Your task to perform on an android device: move an email to a new category in the gmail app Image 0: 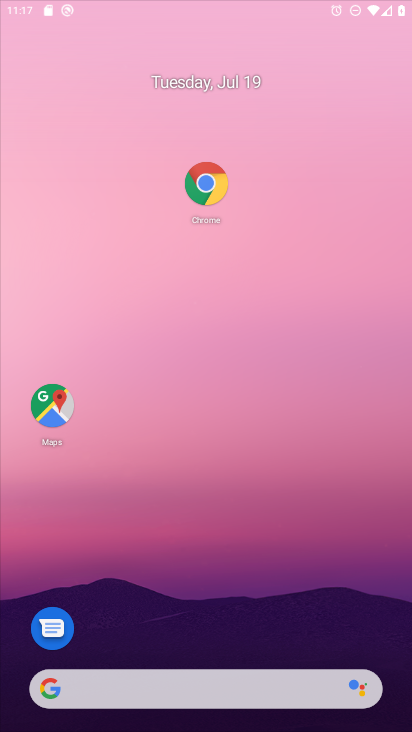
Step 0: press home button
Your task to perform on an android device: move an email to a new category in the gmail app Image 1: 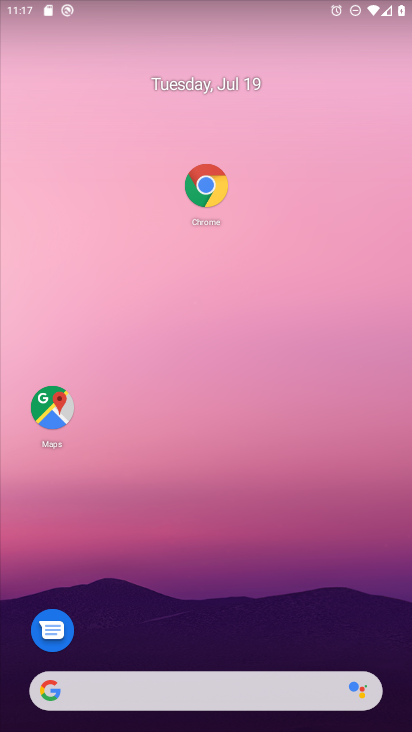
Step 1: drag from (244, 687) to (302, 153)
Your task to perform on an android device: move an email to a new category in the gmail app Image 2: 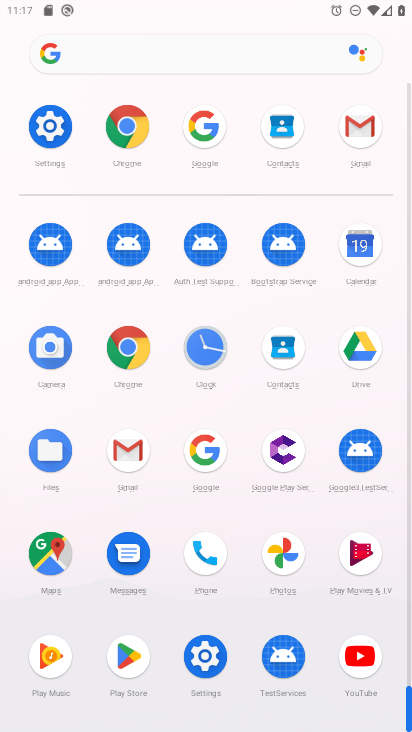
Step 2: click (140, 473)
Your task to perform on an android device: move an email to a new category in the gmail app Image 3: 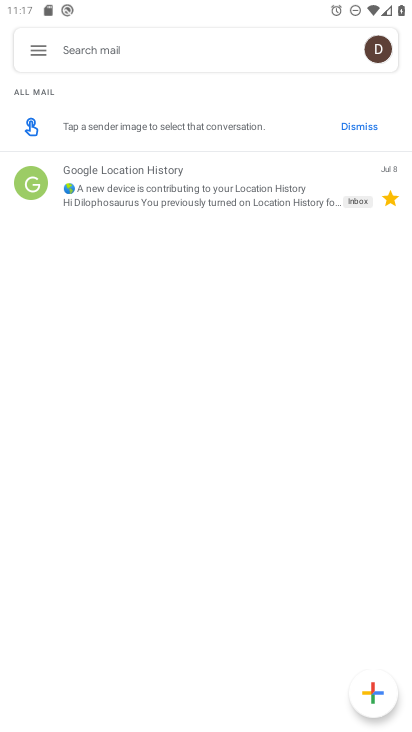
Step 3: click (202, 199)
Your task to perform on an android device: move an email to a new category in the gmail app Image 4: 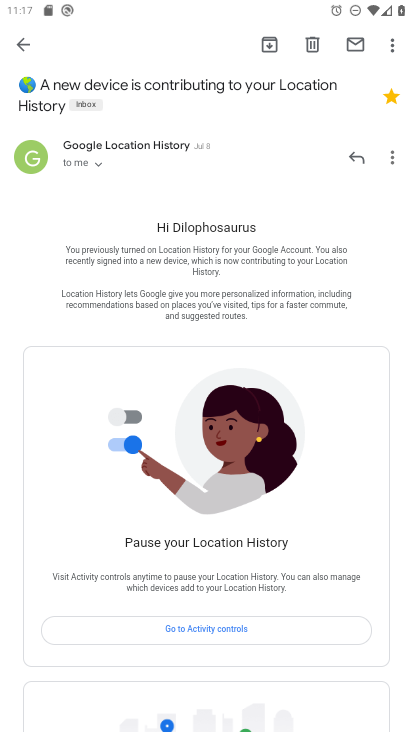
Step 4: click (402, 39)
Your task to perform on an android device: move an email to a new category in the gmail app Image 5: 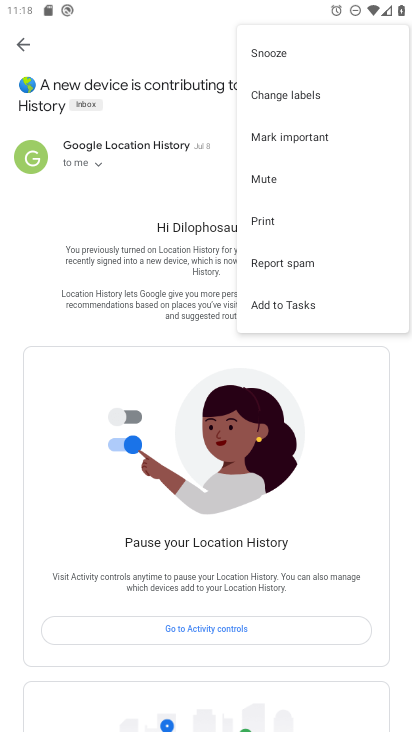
Step 5: click (277, 91)
Your task to perform on an android device: move an email to a new category in the gmail app Image 6: 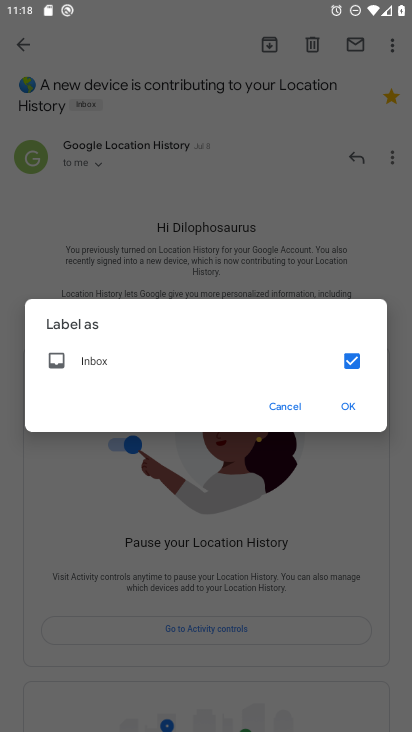
Step 6: click (351, 367)
Your task to perform on an android device: move an email to a new category in the gmail app Image 7: 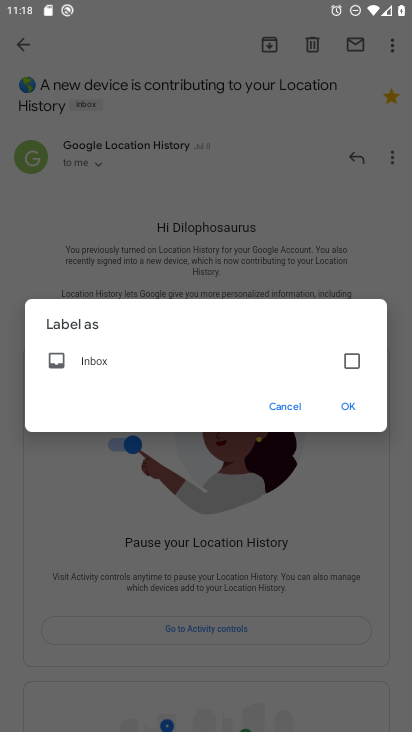
Step 7: click (349, 406)
Your task to perform on an android device: move an email to a new category in the gmail app Image 8: 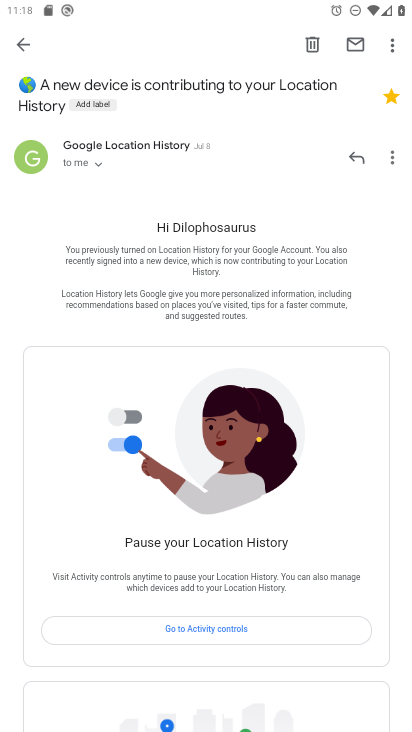
Step 8: task complete